Your task to perform on an android device: Open Google Chrome and open the bookmarks view Image 0: 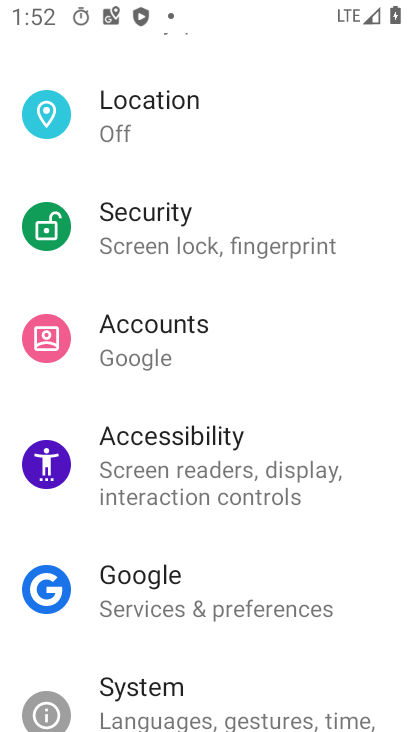
Step 0: press back button
Your task to perform on an android device: Open Google Chrome and open the bookmarks view Image 1: 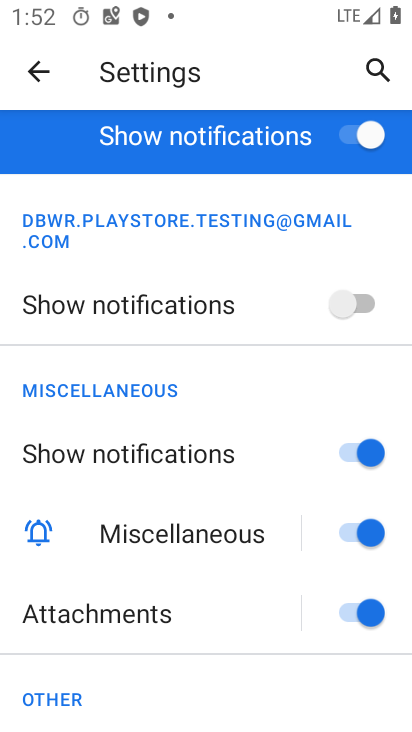
Step 1: press home button
Your task to perform on an android device: Open Google Chrome and open the bookmarks view Image 2: 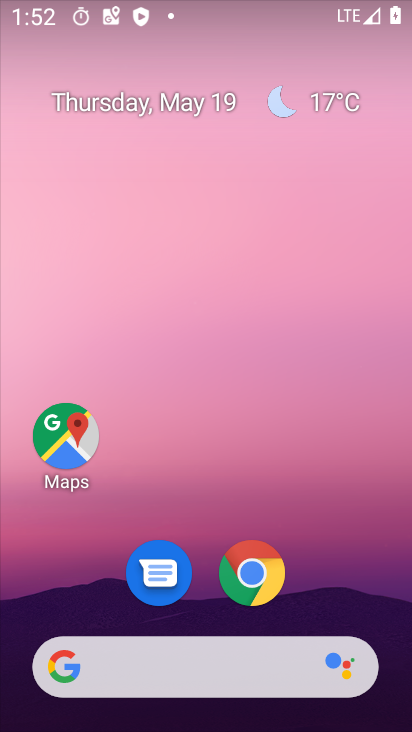
Step 2: click (249, 545)
Your task to perform on an android device: Open Google Chrome and open the bookmarks view Image 3: 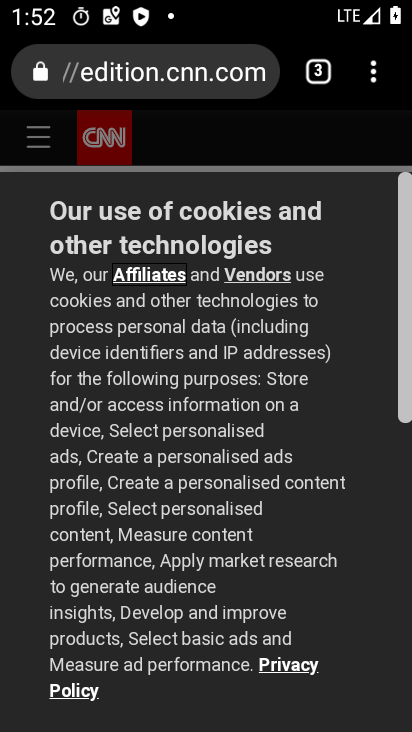
Step 3: task complete